Your task to perform on an android device: Set an alarm for 7pm Image 0: 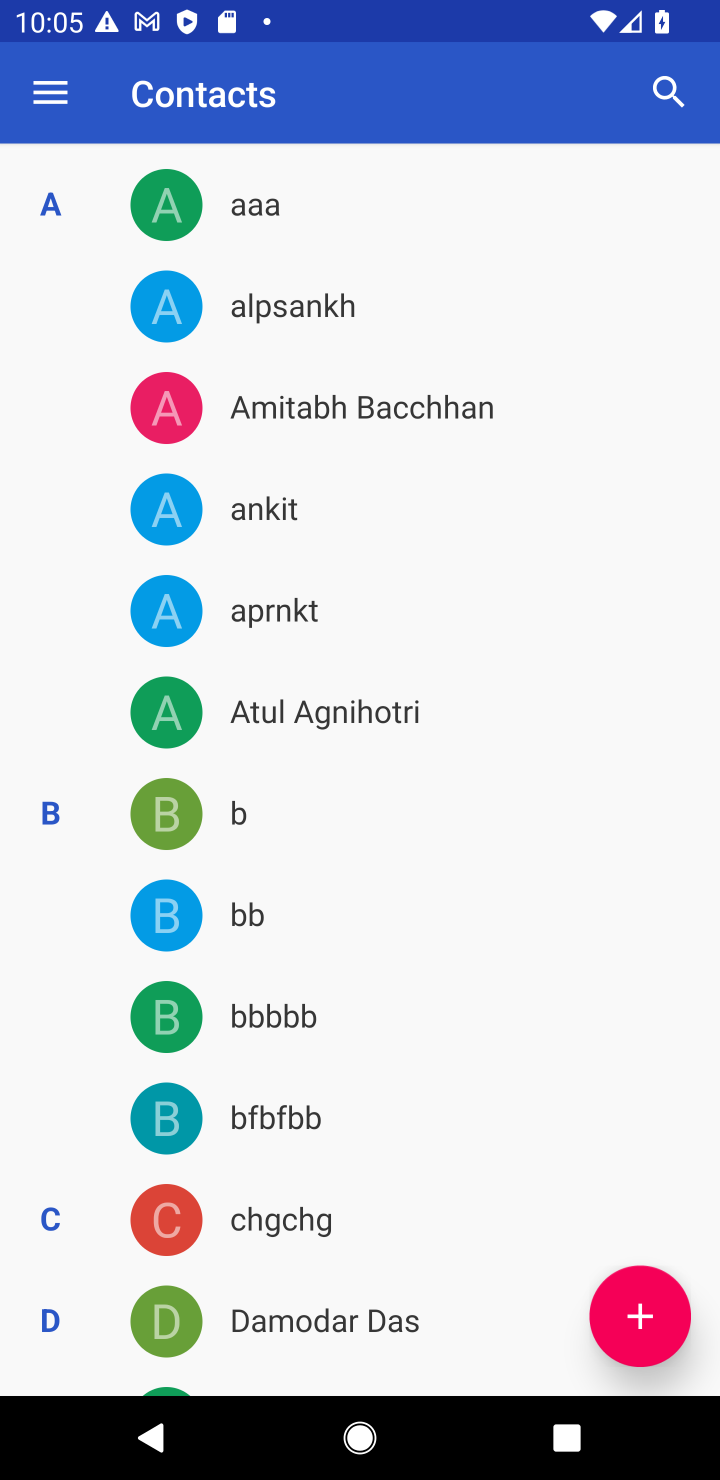
Step 0: press home button
Your task to perform on an android device: Set an alarm for 7pm Image 1: 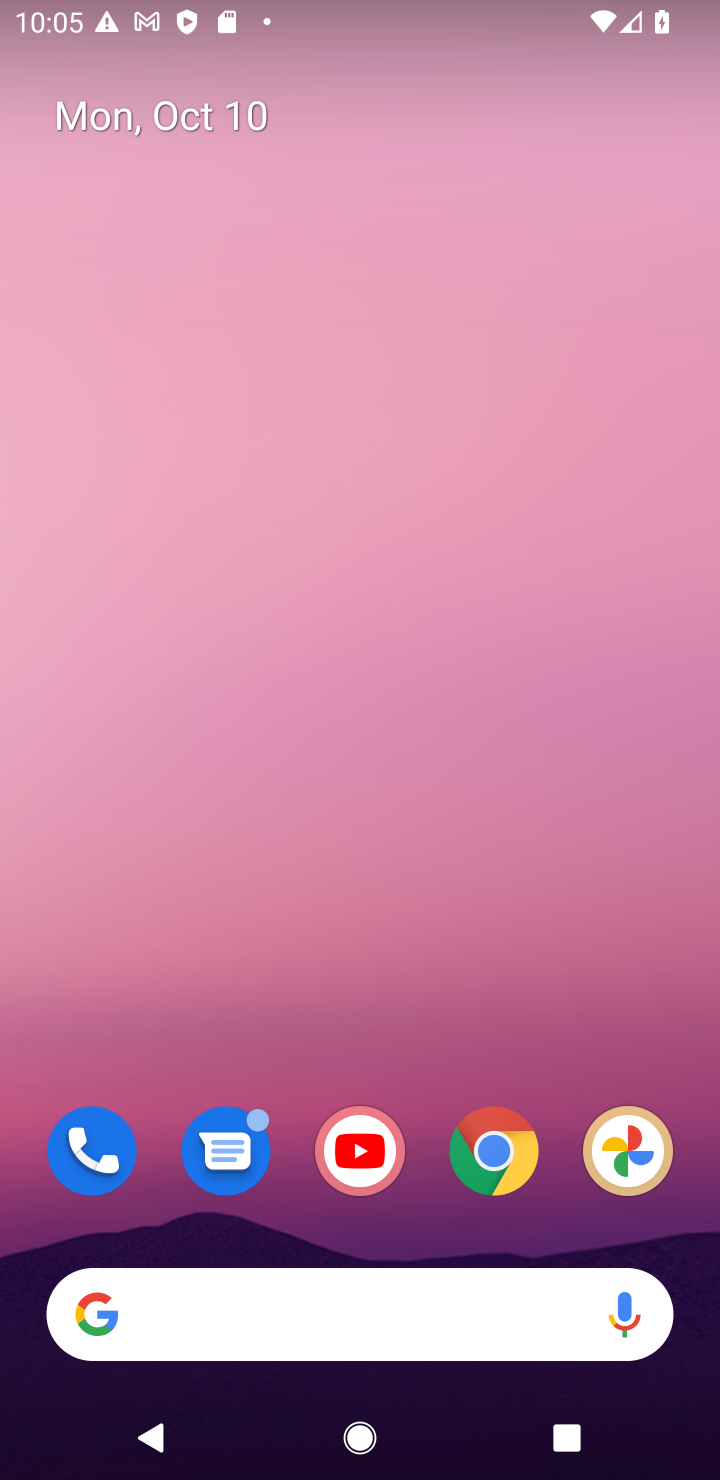
Step 1: drag from (291, 755) to (136, 86)
Your task to perform on an android device: Set an alarm for 7pm Image 2: 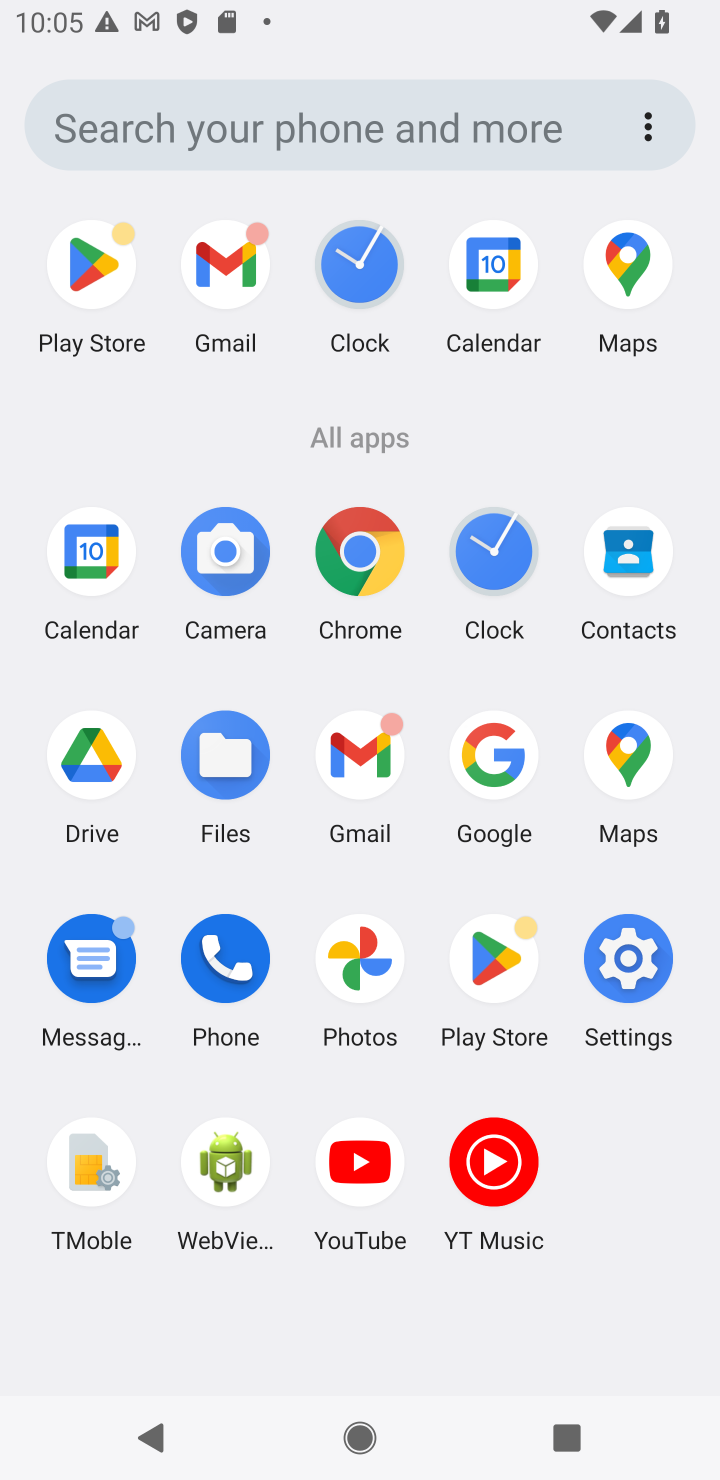
Step 2: click (323, 306)
Your task to perform on an android device: Set an alarm for 7pm Image 3: 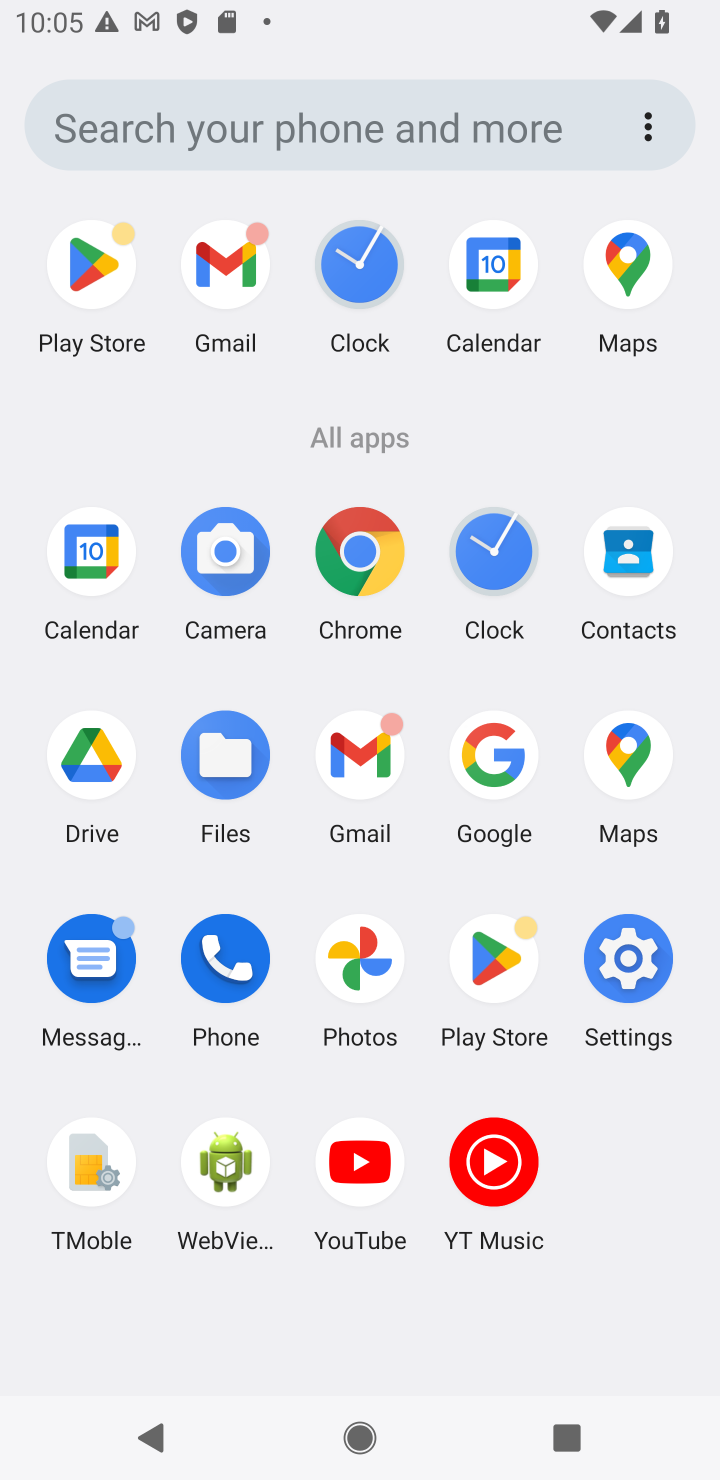
Step 3: click (353, 285)
Your task to perform on an android device: Set an alarm for 7pm Image 4: 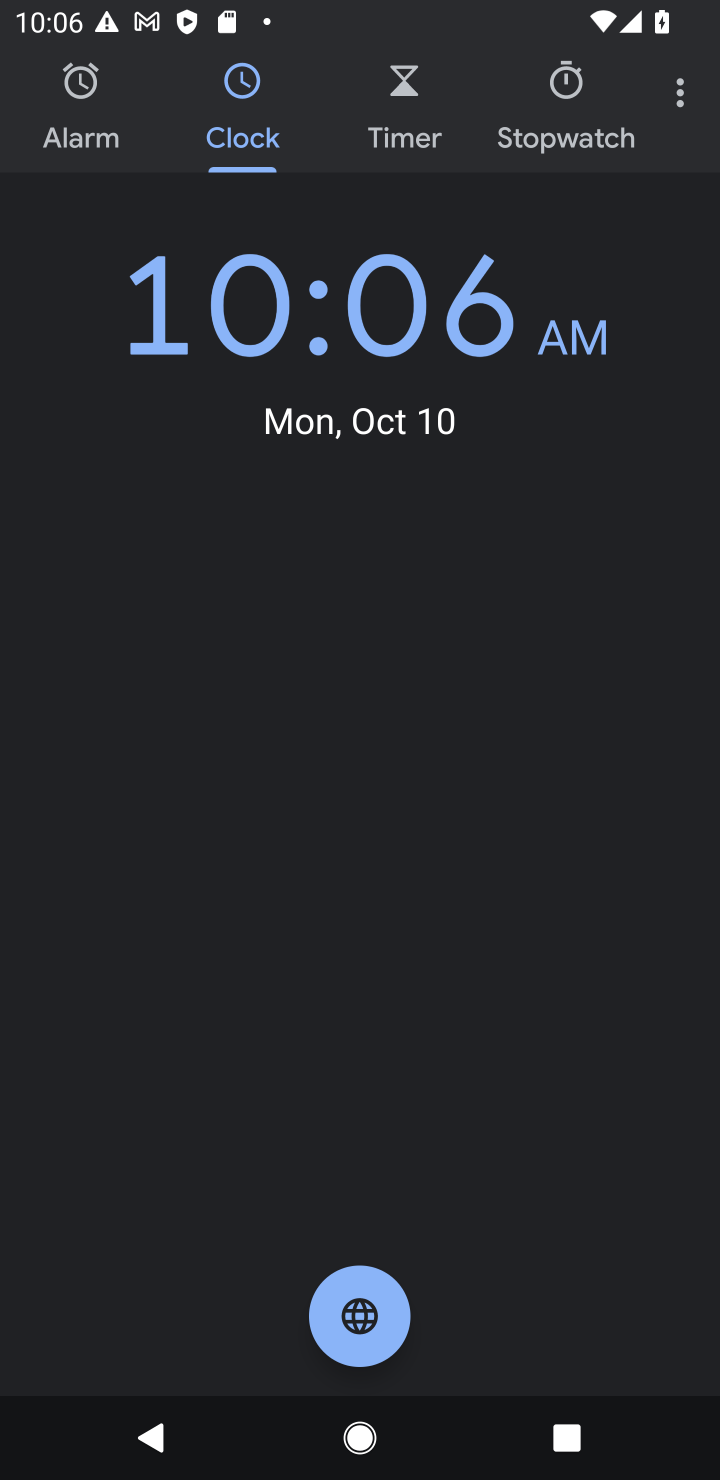
Step 4: click (59, 135)
Your task to perform on an android device: Set an alarm for 7pm Image 5: 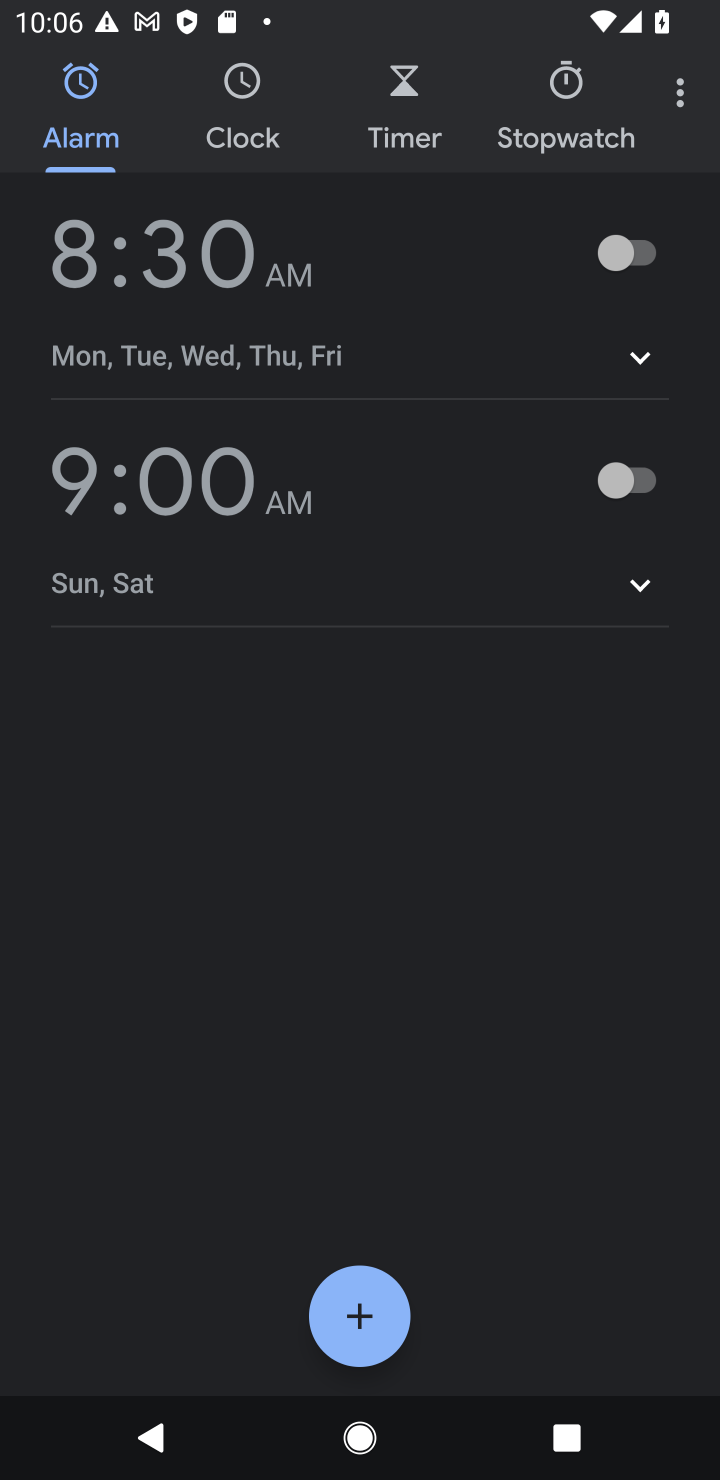
Step 5: click (59, 135)
Your task to perform on an android device: Set an alarm for 7pm Image 6: 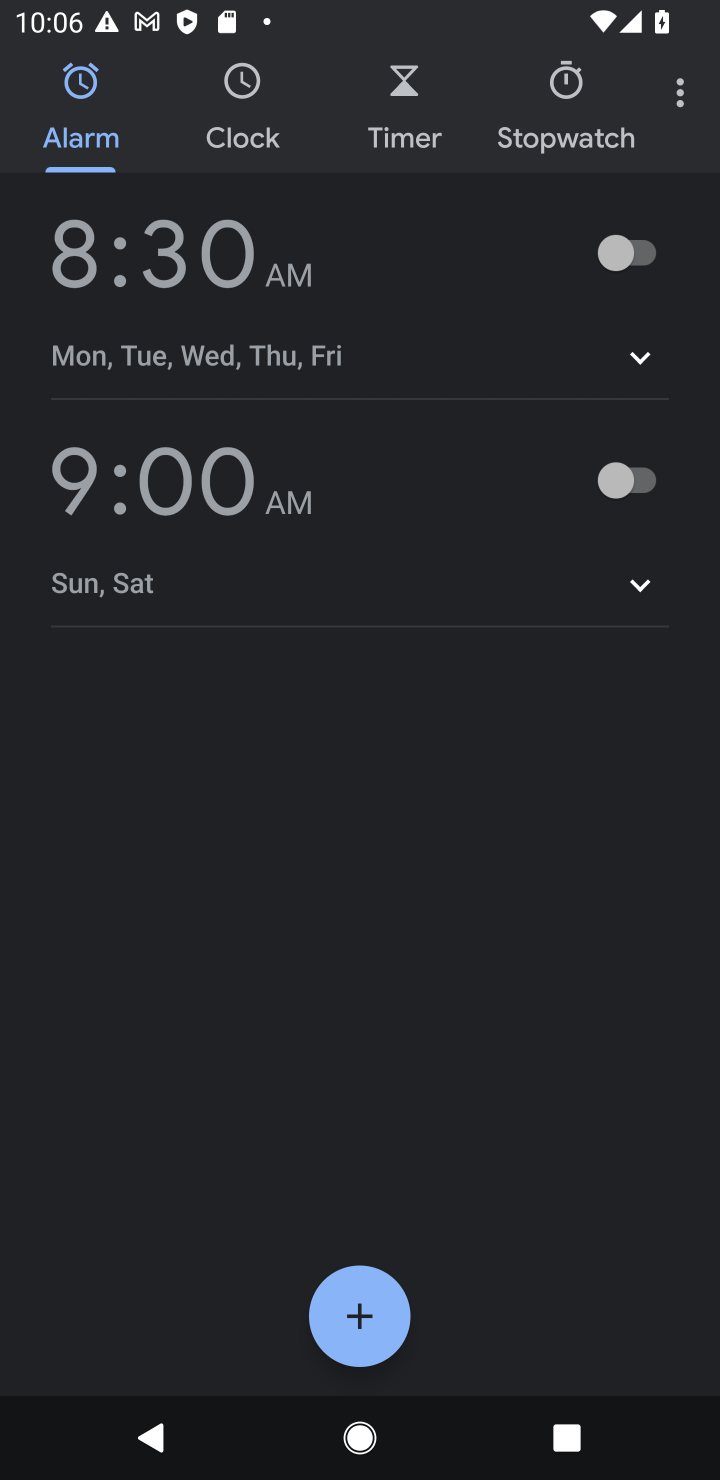
Step 6: click (355, 1337)
Your task to perform on an android device: Set an alarm for 7pm Image 7: 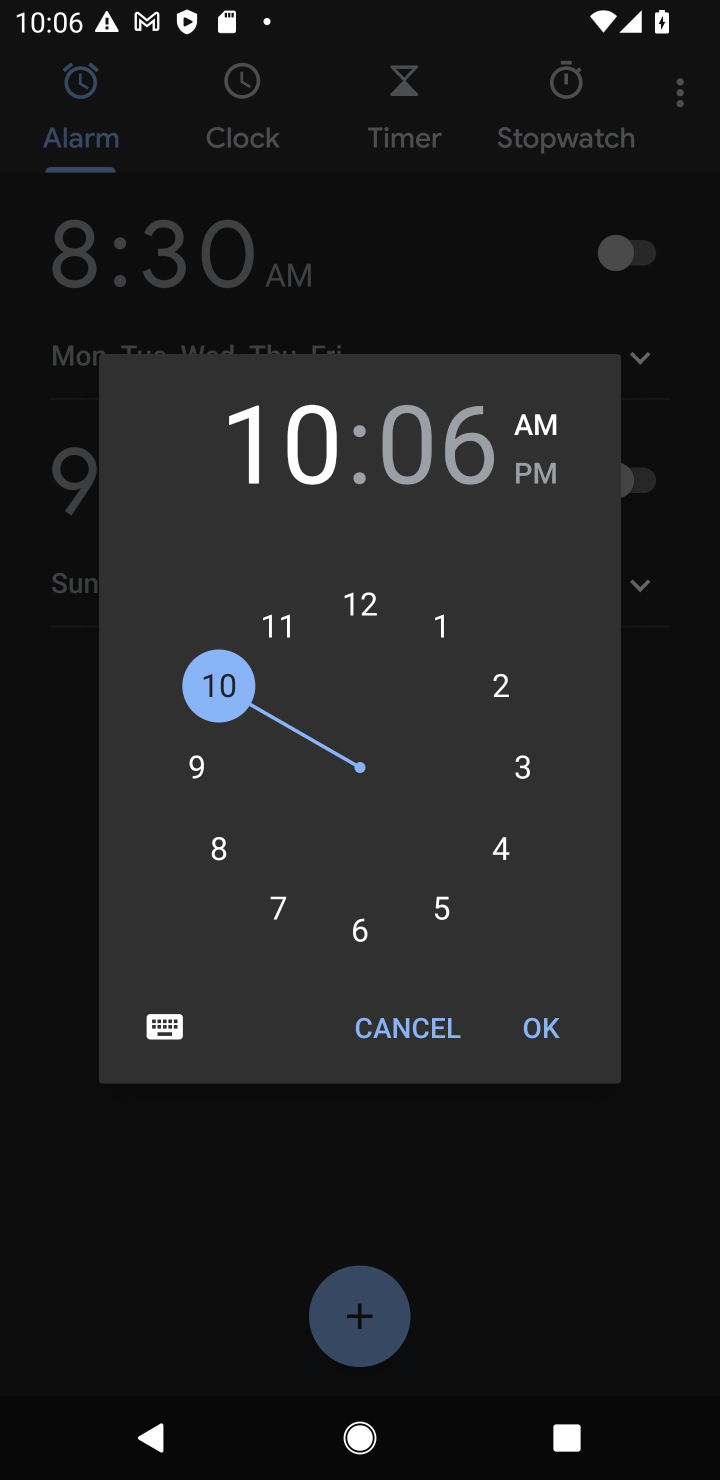
Step 7: click (284, 915)
Your task to perform on an android device: Set an alarm for 7pm Image 8: 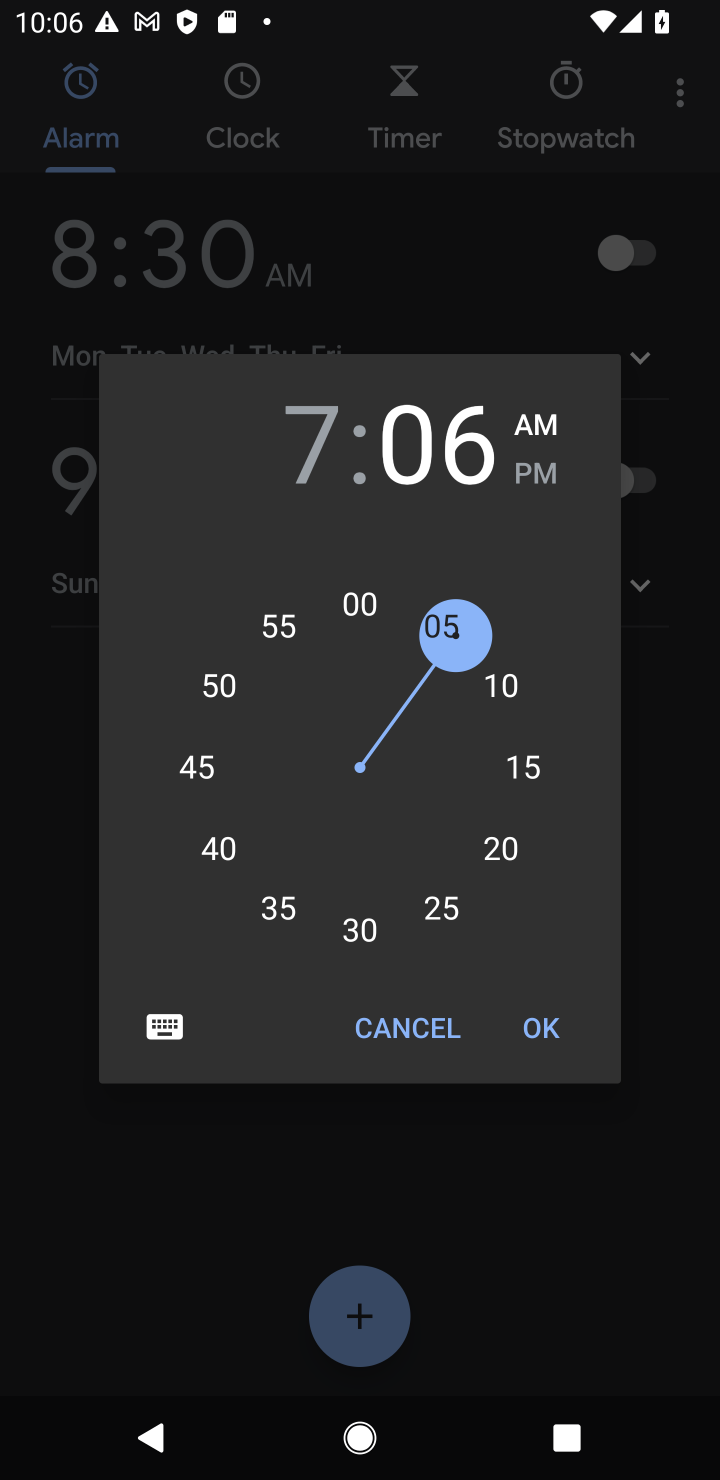
Step 8: click (364, 603)
Your task to perform on an android device: Set an alarm for 7pm Image 9: 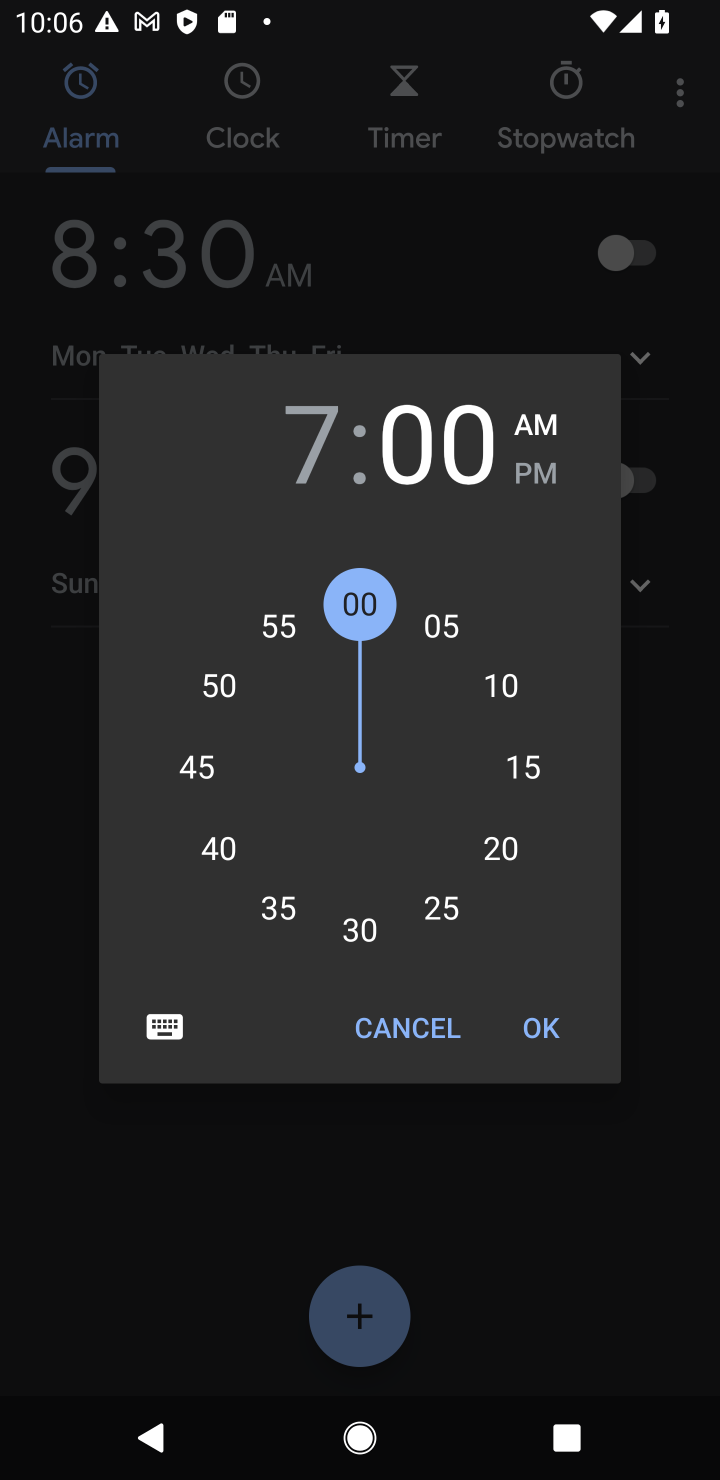
Step 9: click (547, 473)
Your task to perform on an android device: Set an alarm for 7pm Image 10: 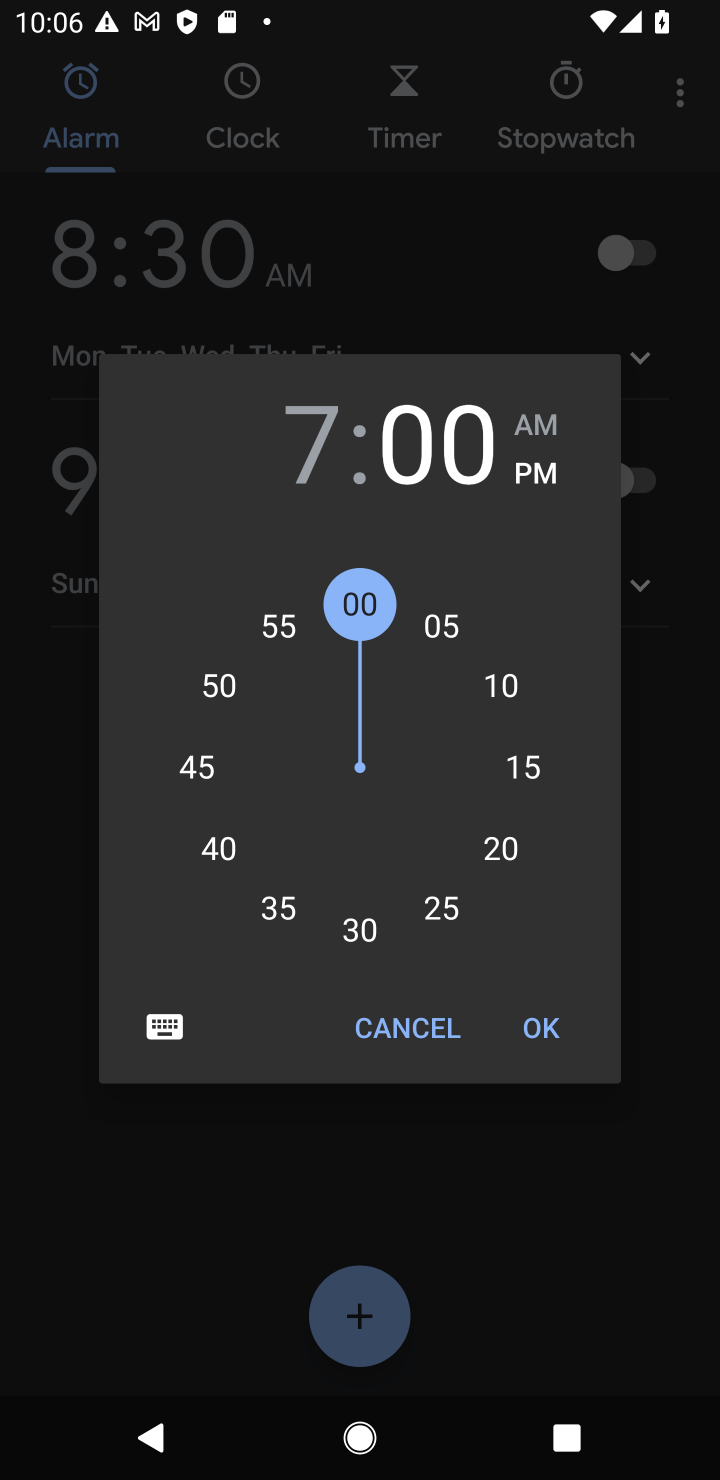
Step 10: click (557, 1048)
Your task to perform on an android device: Set an alarm for 7pm Image 11: 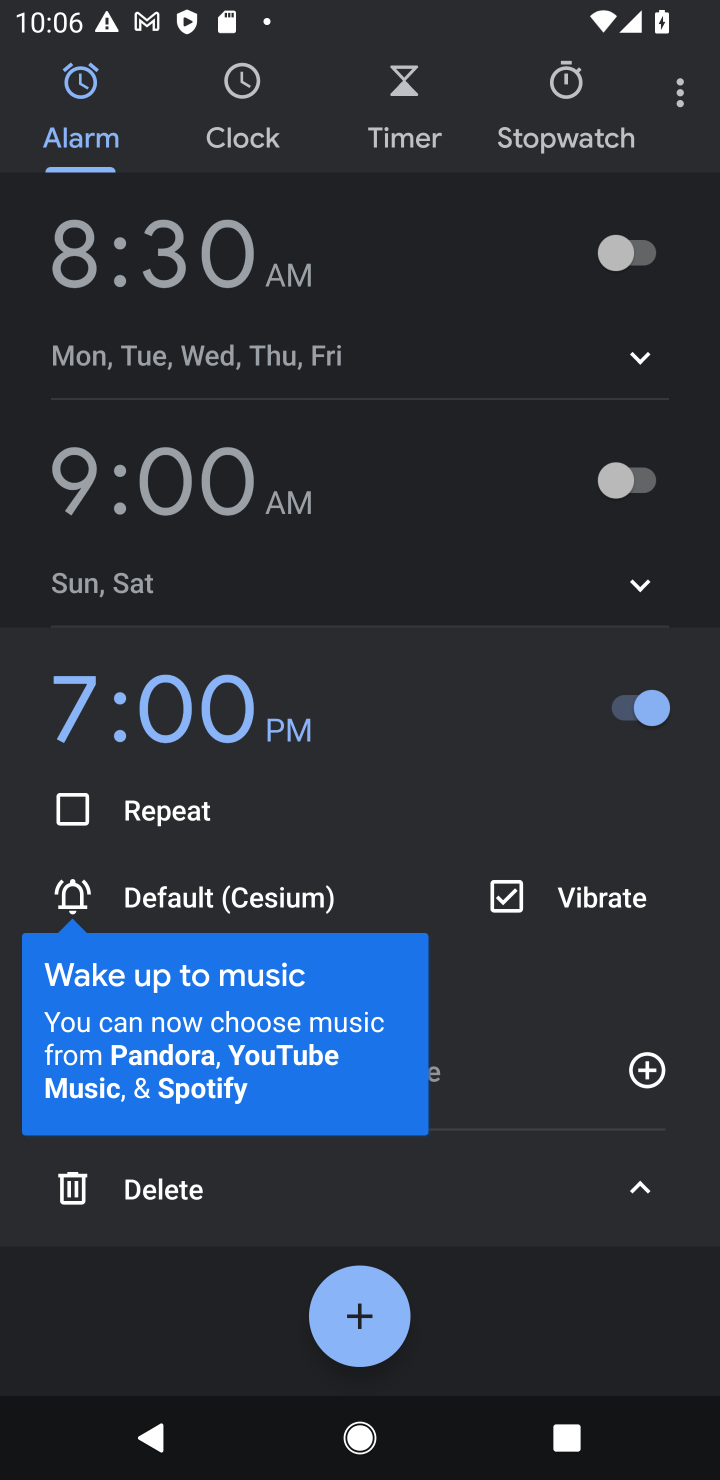
Step 11: task complete